Your task to perform on an android device: check data usage Image 0: 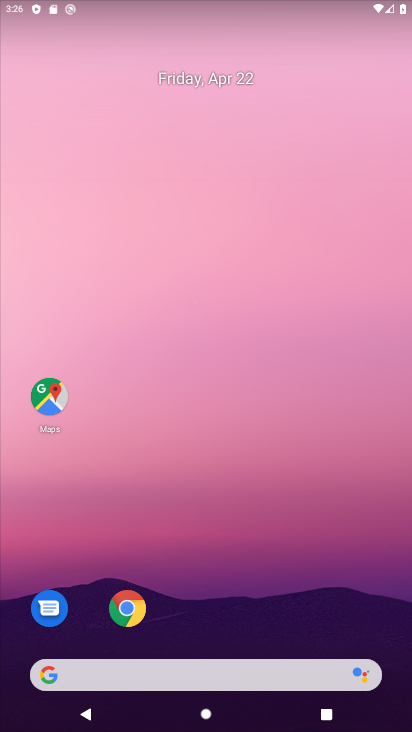
Step 0: drag from (270, 608) to (218, 34)
Your task to perform on an android device: check data usage Image 1: 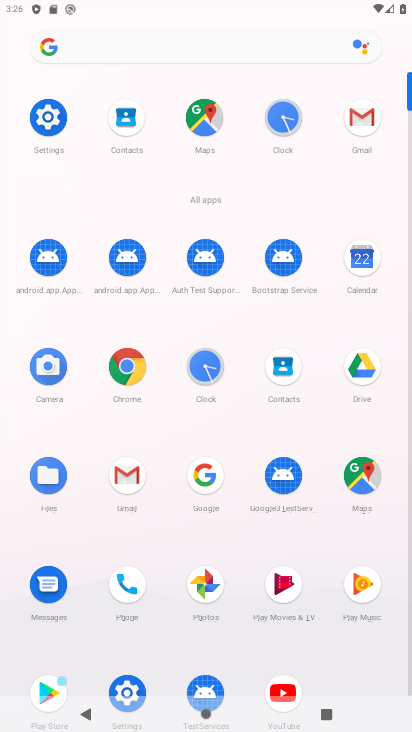
Step 1: click (51, 139)
Your task to perform on an android device: check data usage Image 2: 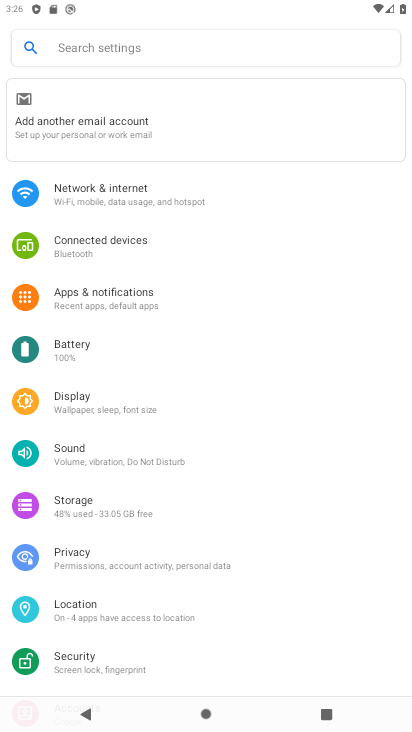
Step 2: click (105, 195)
Your task to perform on an android device: check data usage Image 3: 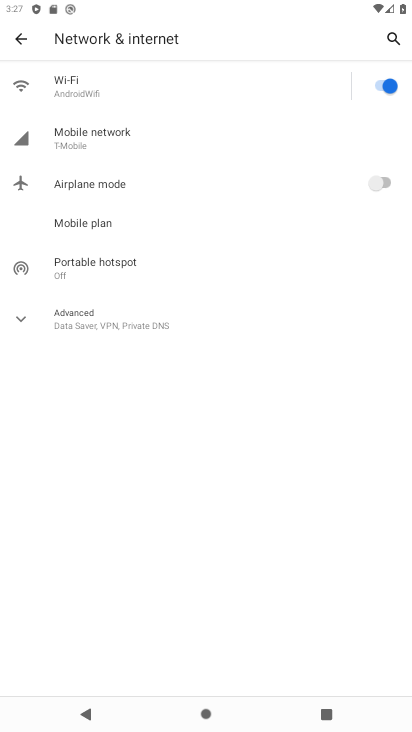
Step 3: click (134, 92)
Your task to perform on an android device: check data usage Image 4: 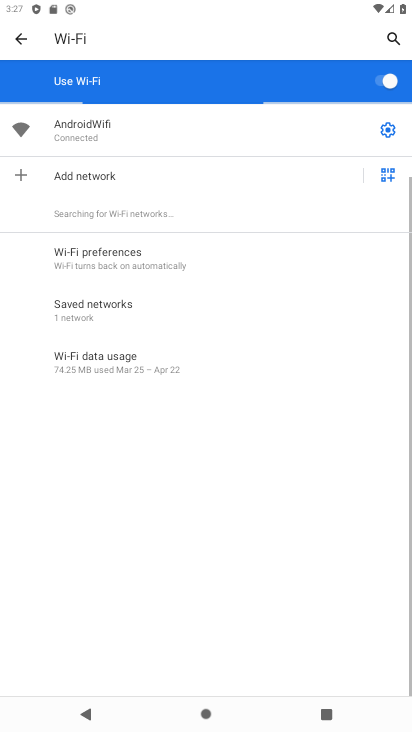
Step 4: click (178, 376)
Your task to perform on an android device: check data usage Image 5: 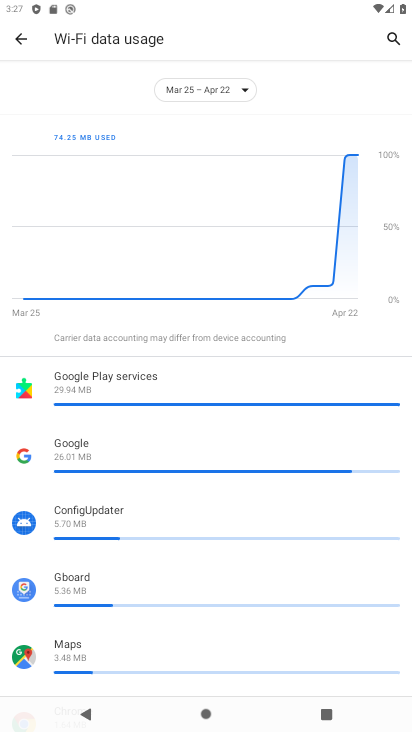
Step 5: task complete